Your task to perform on an android device: Open Google Image 0: 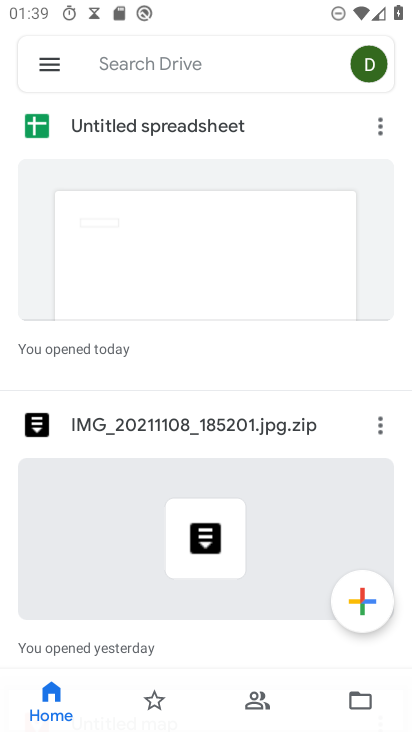
Step 0: click (48, 375)
Your task to perform on an android device: Open Google Image 1: 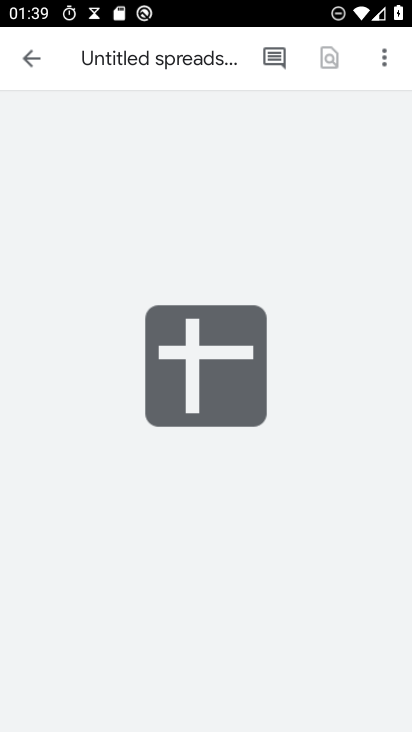
Step 1: press home button
Your task to perform on an android device: Open Google Image 2: 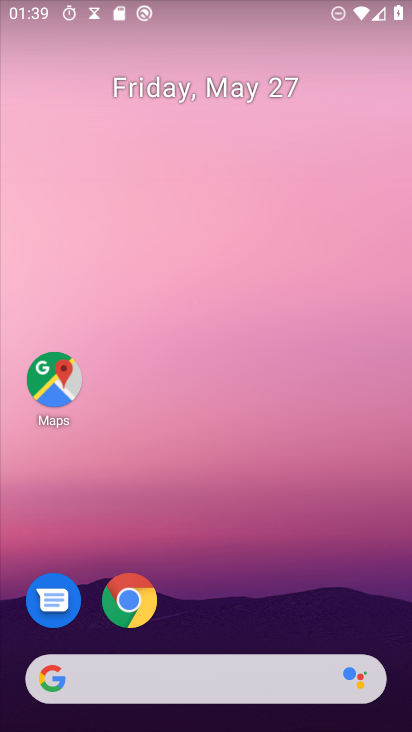
Step 2: click (34, 375)
Your task to perform on an android device: Open Google Image 3: 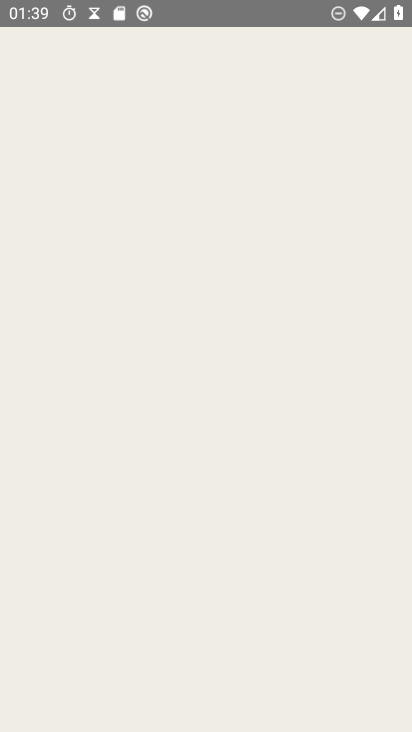
Step 3: press home button
Your task to perform on an android device: Open Google Image 4: 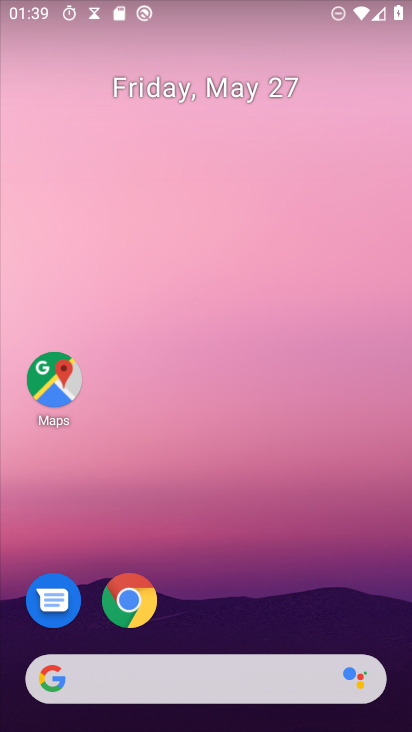
Step 4: click (163, 689)
Your task to perform on an android device: Open Google Image 5: 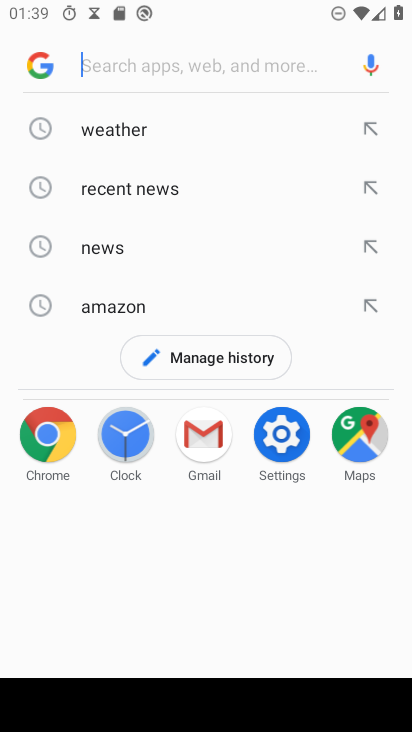
Step 5: task complete